Your task to perform on an android device: Open Google Image 0: 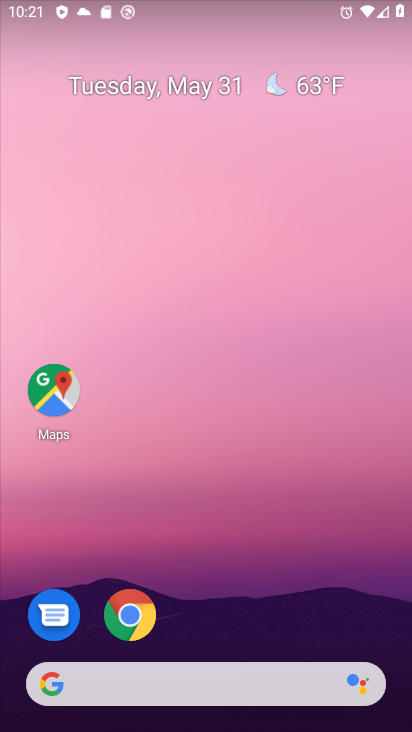
Step 0: drag from (243, 657) to (376, 71)
Your task to perform on an android device: Open Google Image 1: 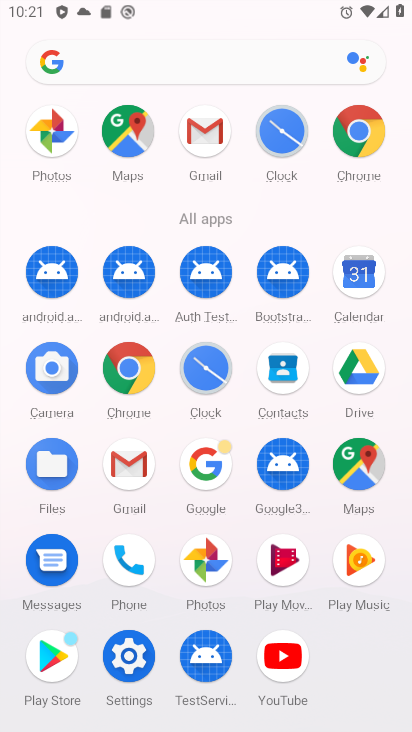
Step 1: click (198, 451)
Your task to perform on an android device: Open Google Image 2: 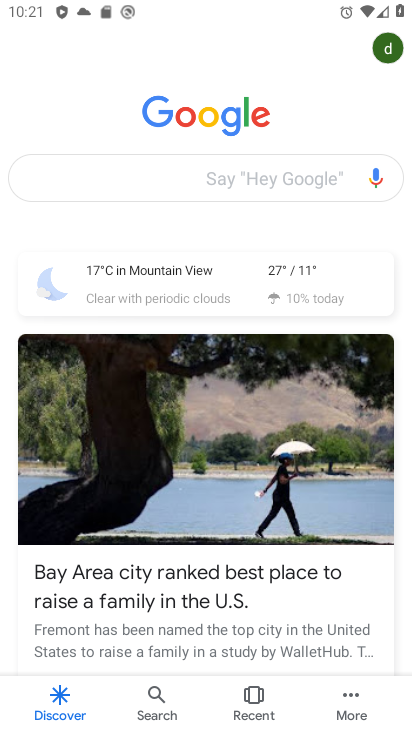
Step 2: task complete